Your task to perform on an android device: see tabs open on other devices in the chrome app Image 0: 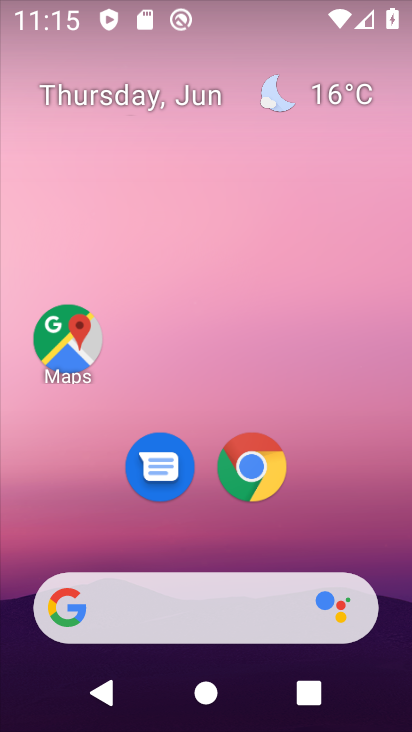
Step 0: click (250, 462)
Your task to perform on an android device: see tabs open on other devices in the chrome app Image 1: 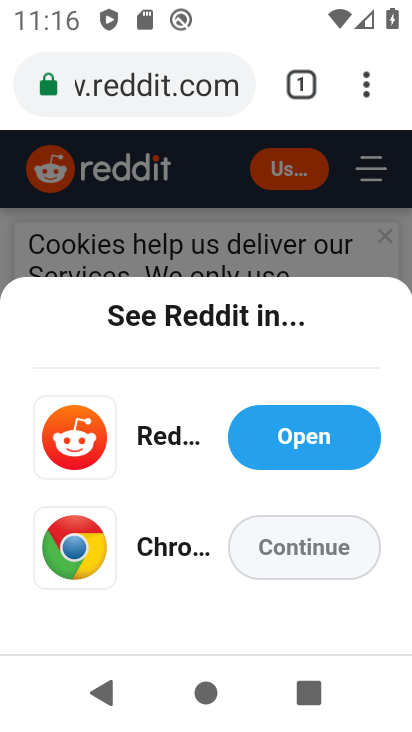
Step 1: click (366, 85)
Your task to perform on an android device: see tabs open on other devices in the chrome app Image 2: 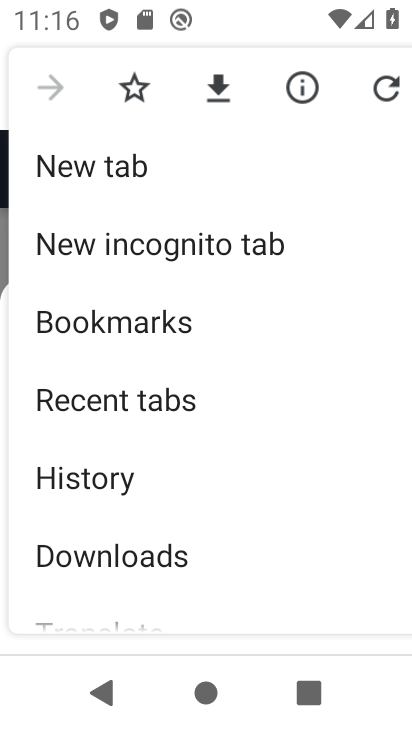
Step 2: click (115, 393)
Your task to perform on an android device: see tabs open on other devices in the chrome app Image 3: 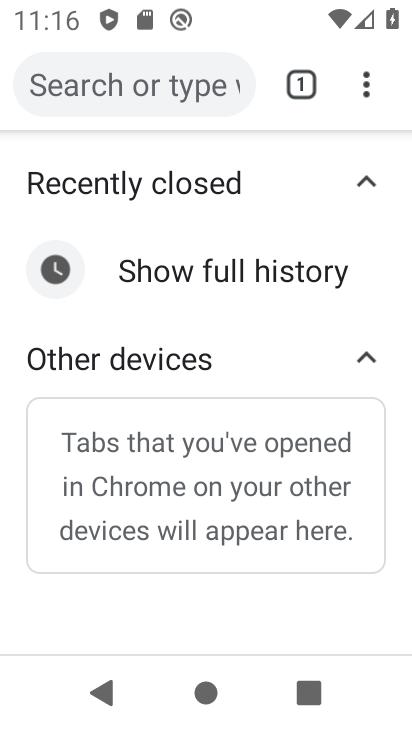
Step 3: task complete